Your task to perform on an android device: uninstall "Fetch Rewards" Image 0: 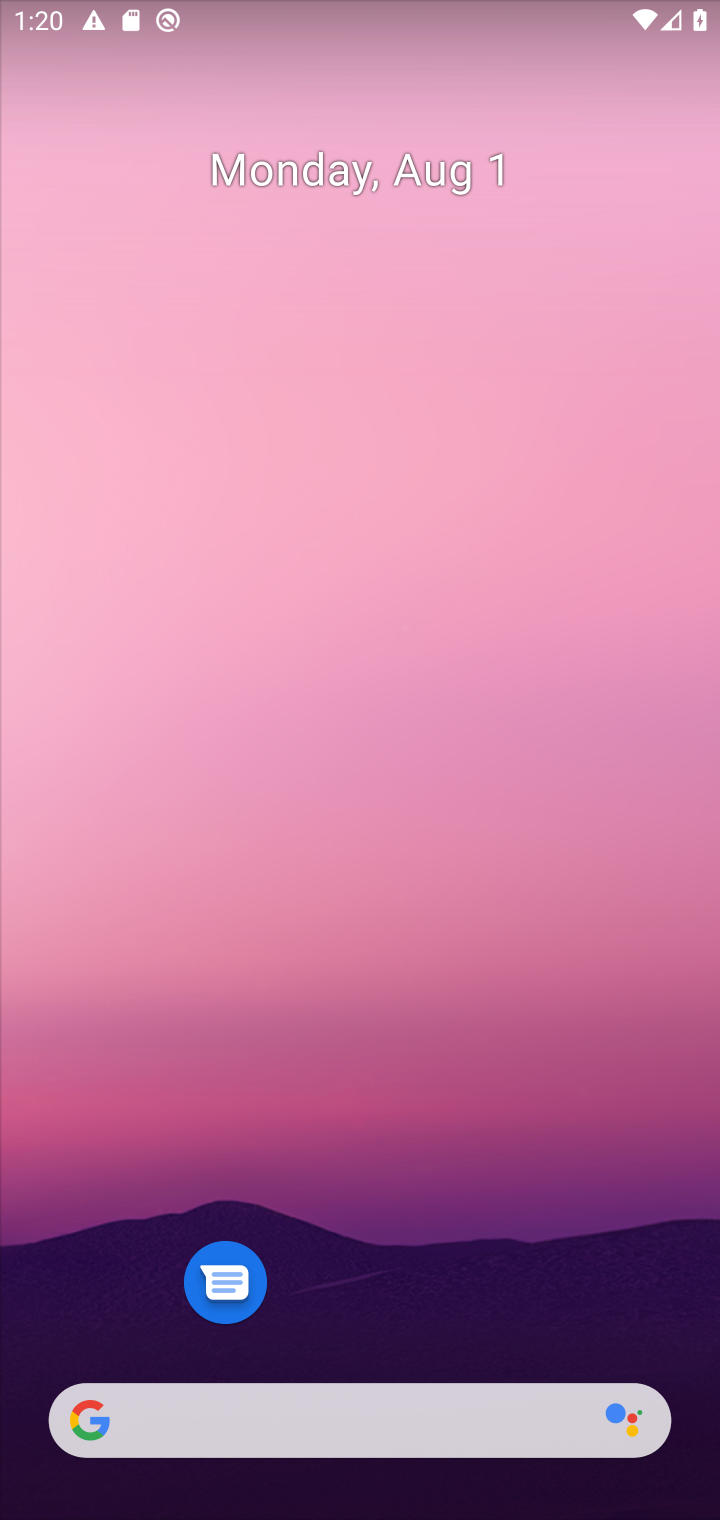
Step 0: drag from (381, 1351) to (375, 61)
Your task to perform on an android device: uninstall "Fetch Rewards" Image 1: 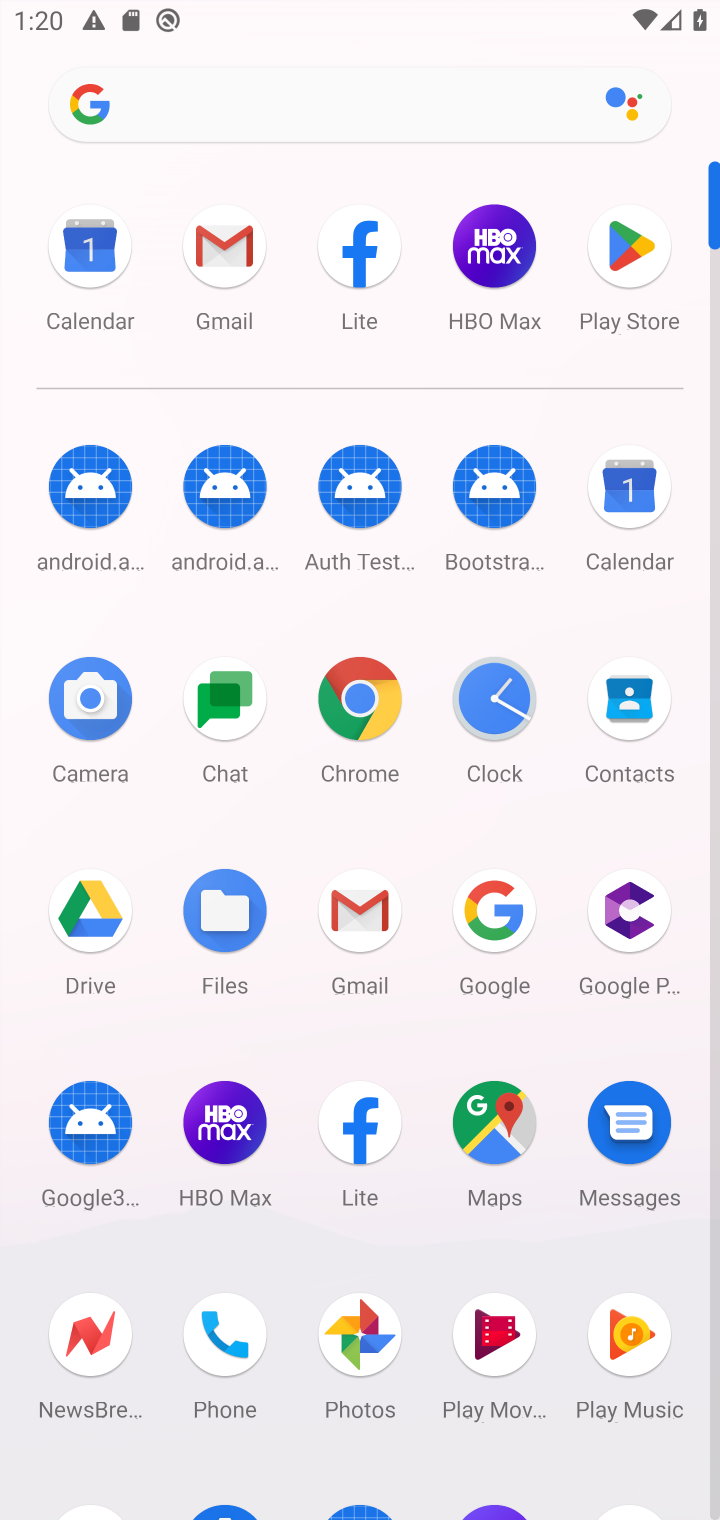
Step 1: click (631, 262)
Your task to perform on an android device: uninstall "Fetch Rewards" Image 2: 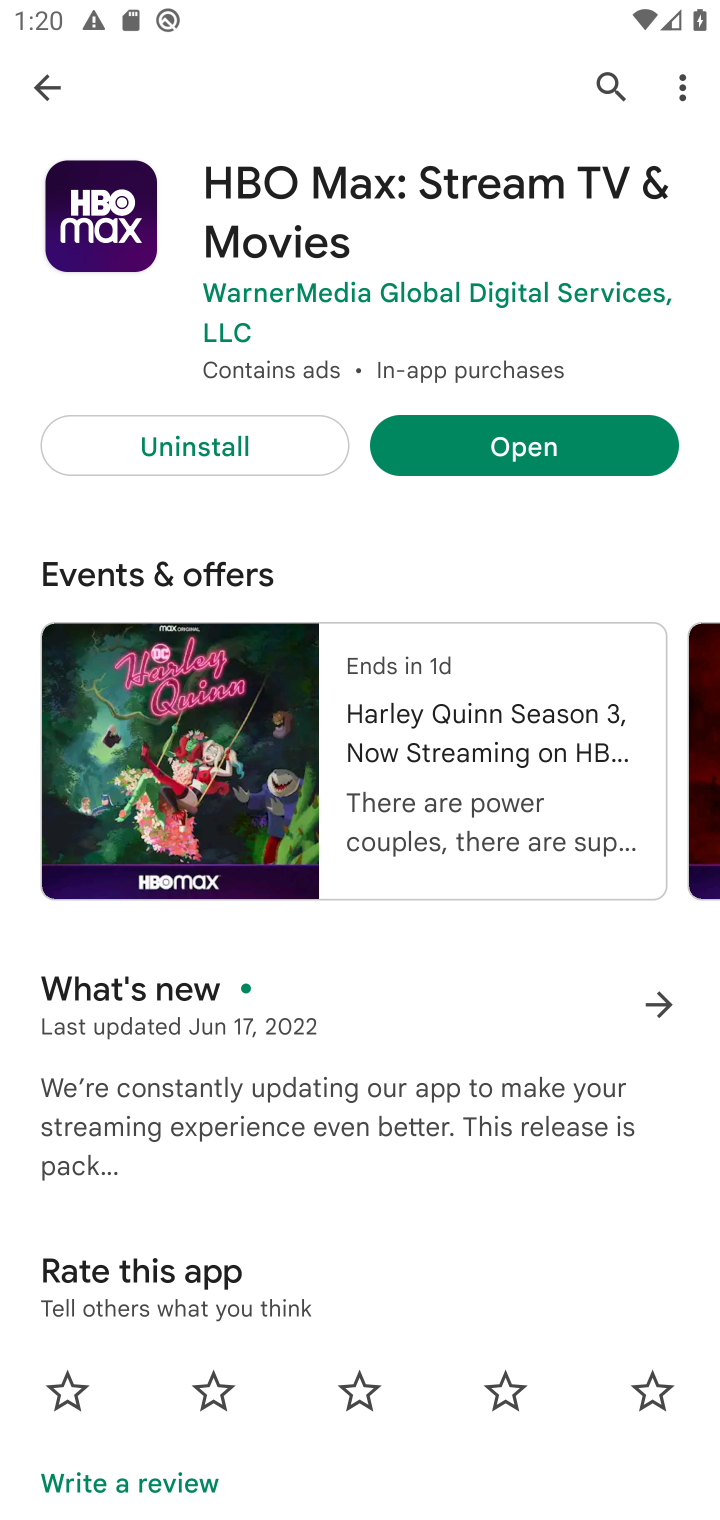
Step 2: click (66, 86)
Your task to perform on an android device: uninstall "Fetch Rewards" Image 3: 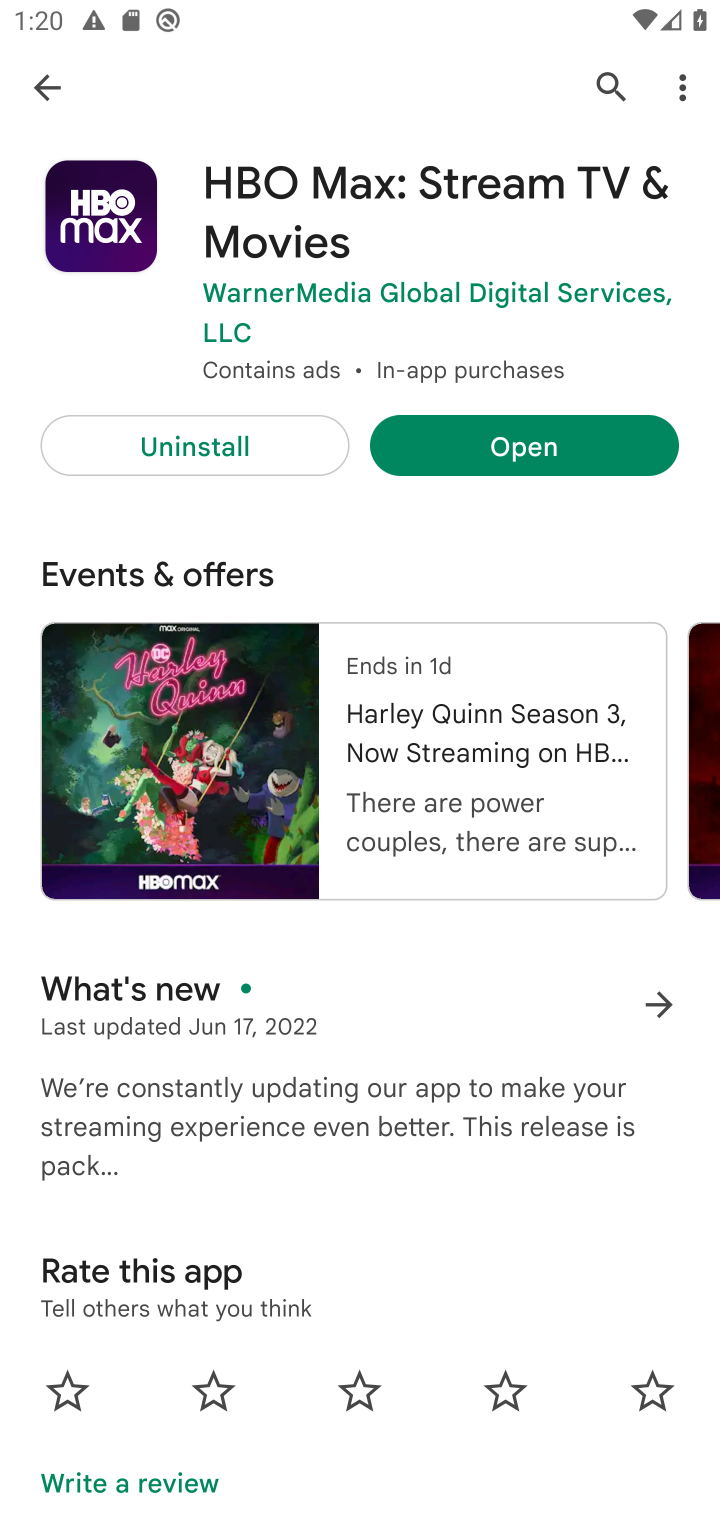
Step 3: click (55, 100)
Your task to perform on an android device: uninstall "Fetch Rewards" Image 4: 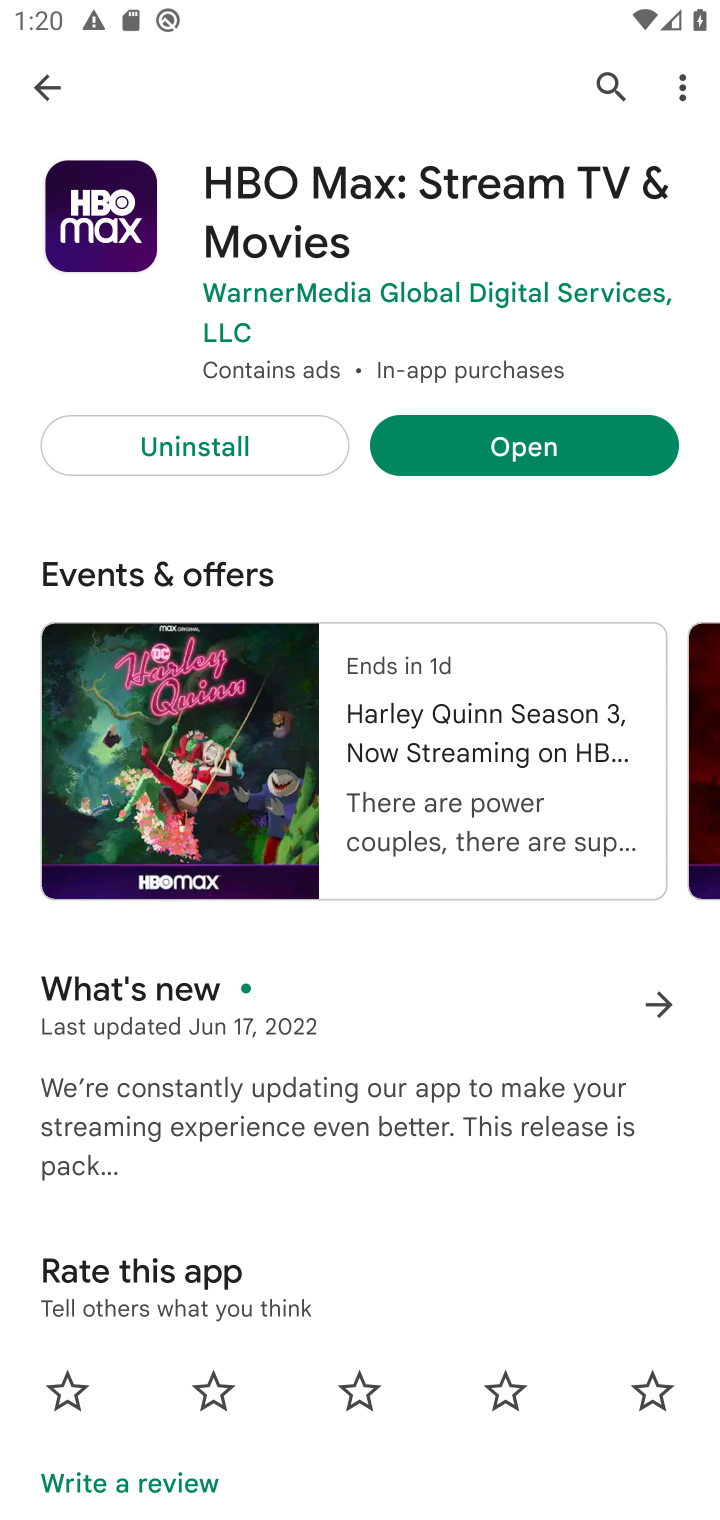
Step 4: click (53, 99)
Your task to perform on an android device: uninstall "Fetch Rewards" Image 5: 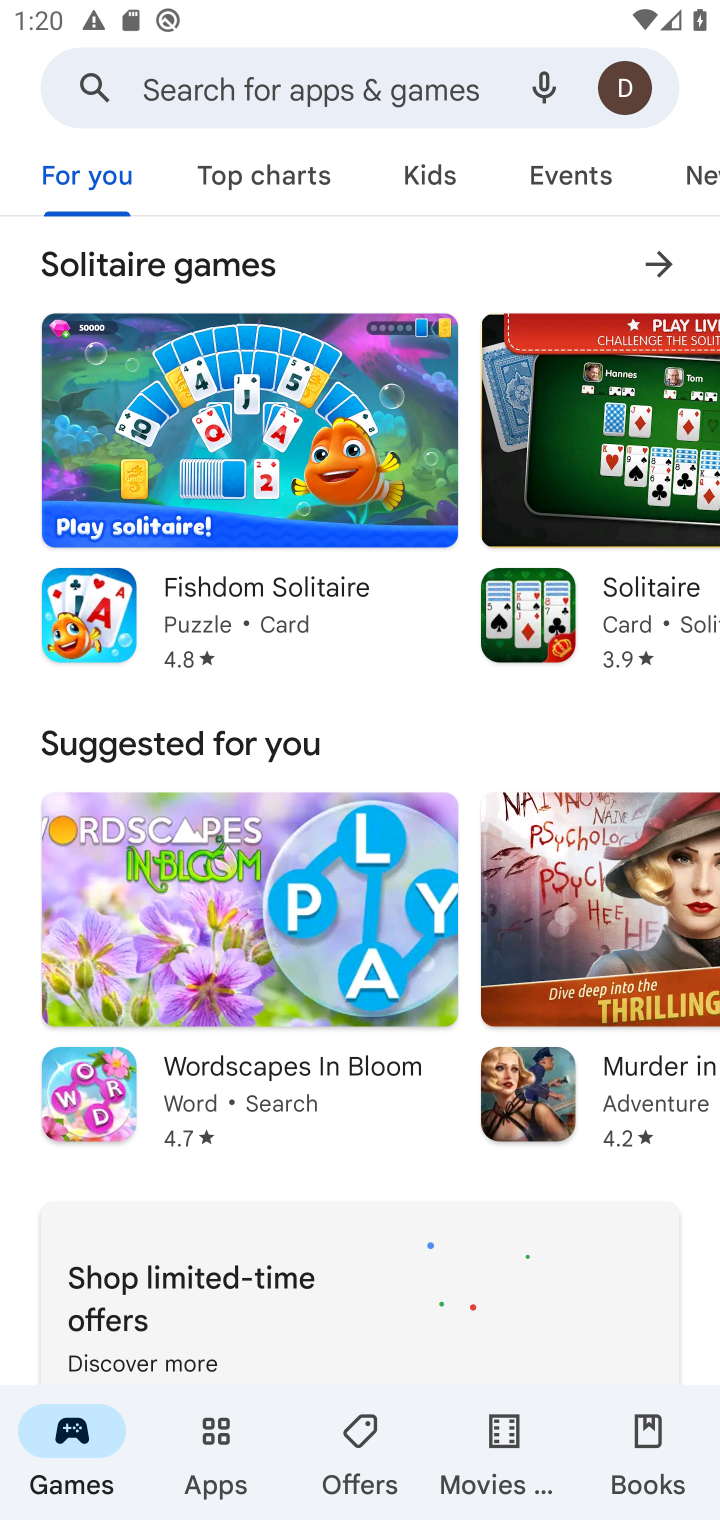
Step 5: click (219, 81)
Your task to perform on an android device: uninstall "Fetch Rewards" Image 6: 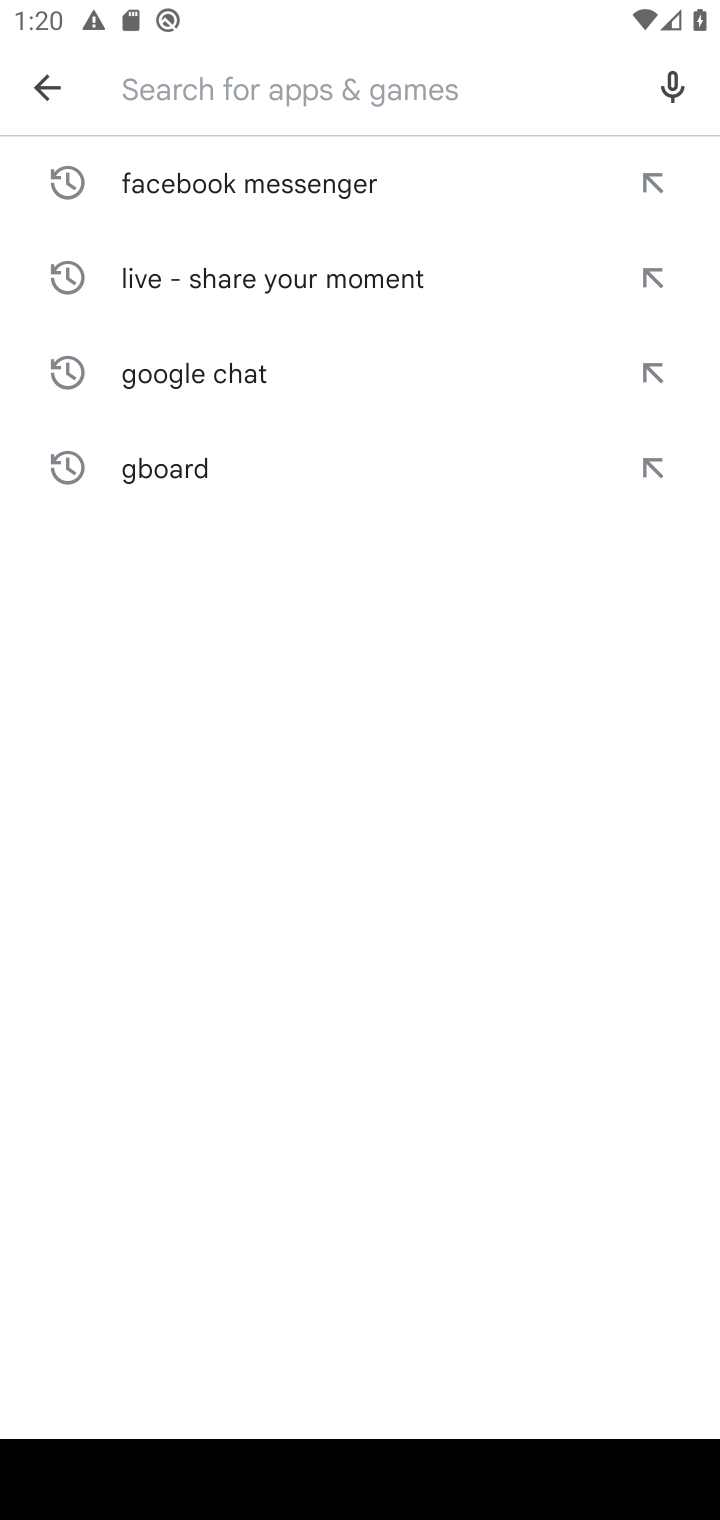
Step 6: click (525, 1091)
Your task to perform on an android device: uninstall "Fetch Rewards" Image 7: 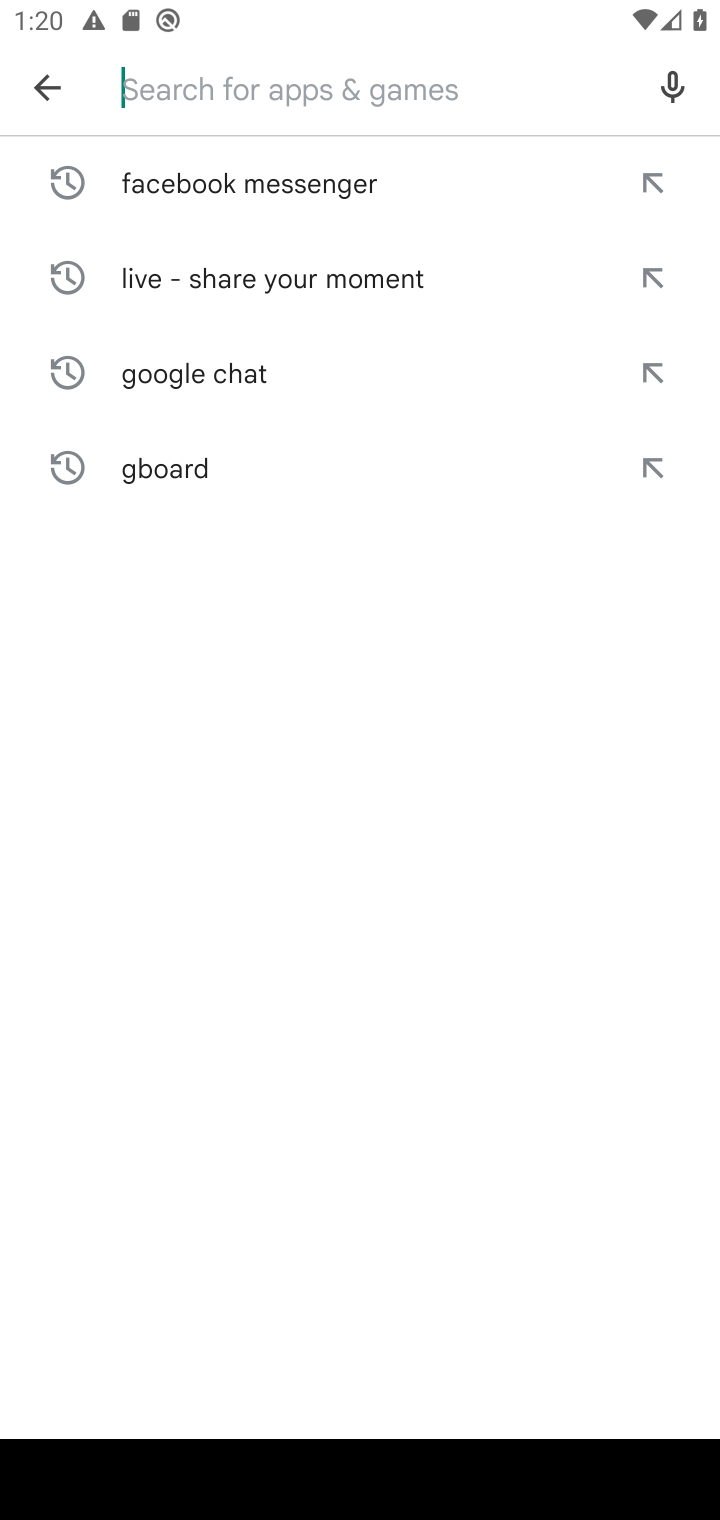
Step 7: type "Fetch Rewards"
Your task to perform on an android device: uninstall "Fetch Rewards" Image 8: 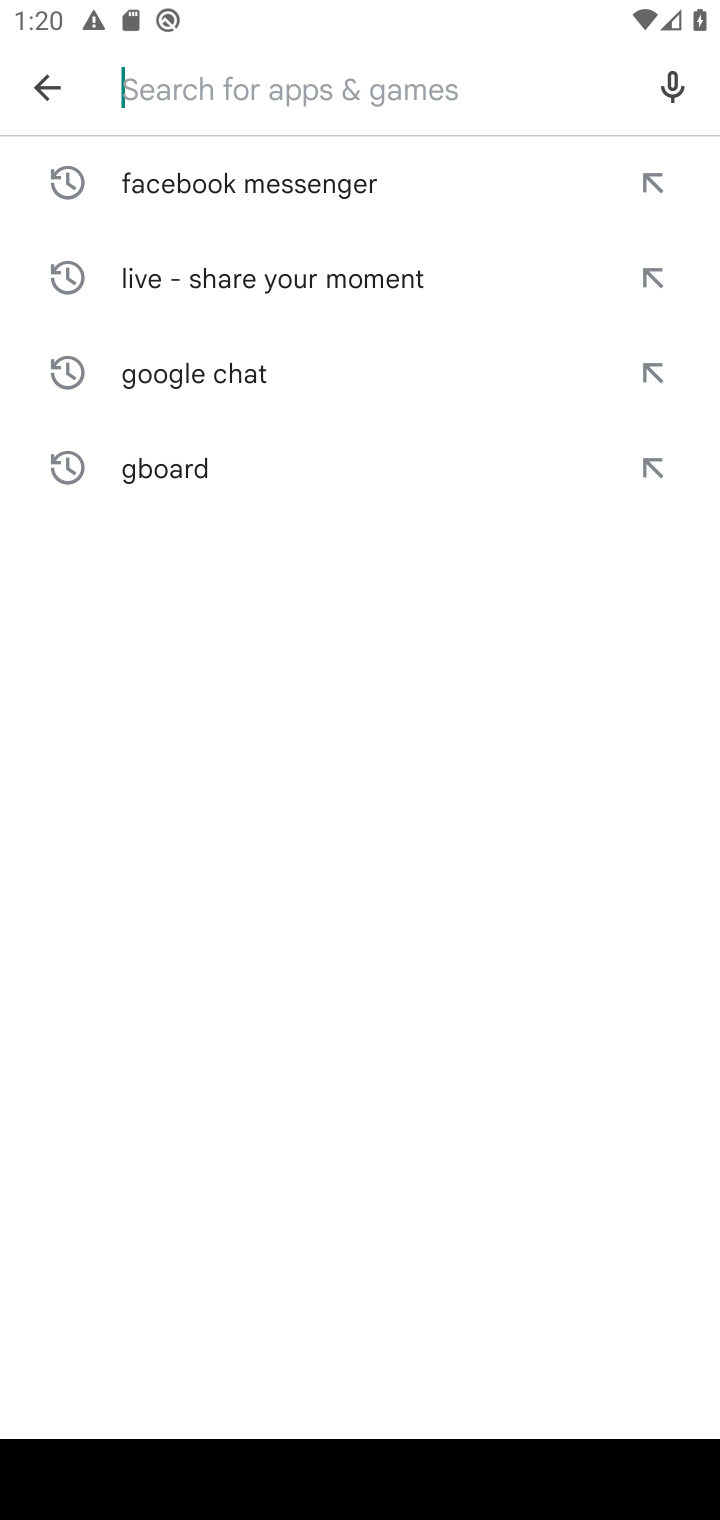
Step 8: click (292, 834)
Your task to perform on an android device: uninstall "Fetch Rewards" Image 9: 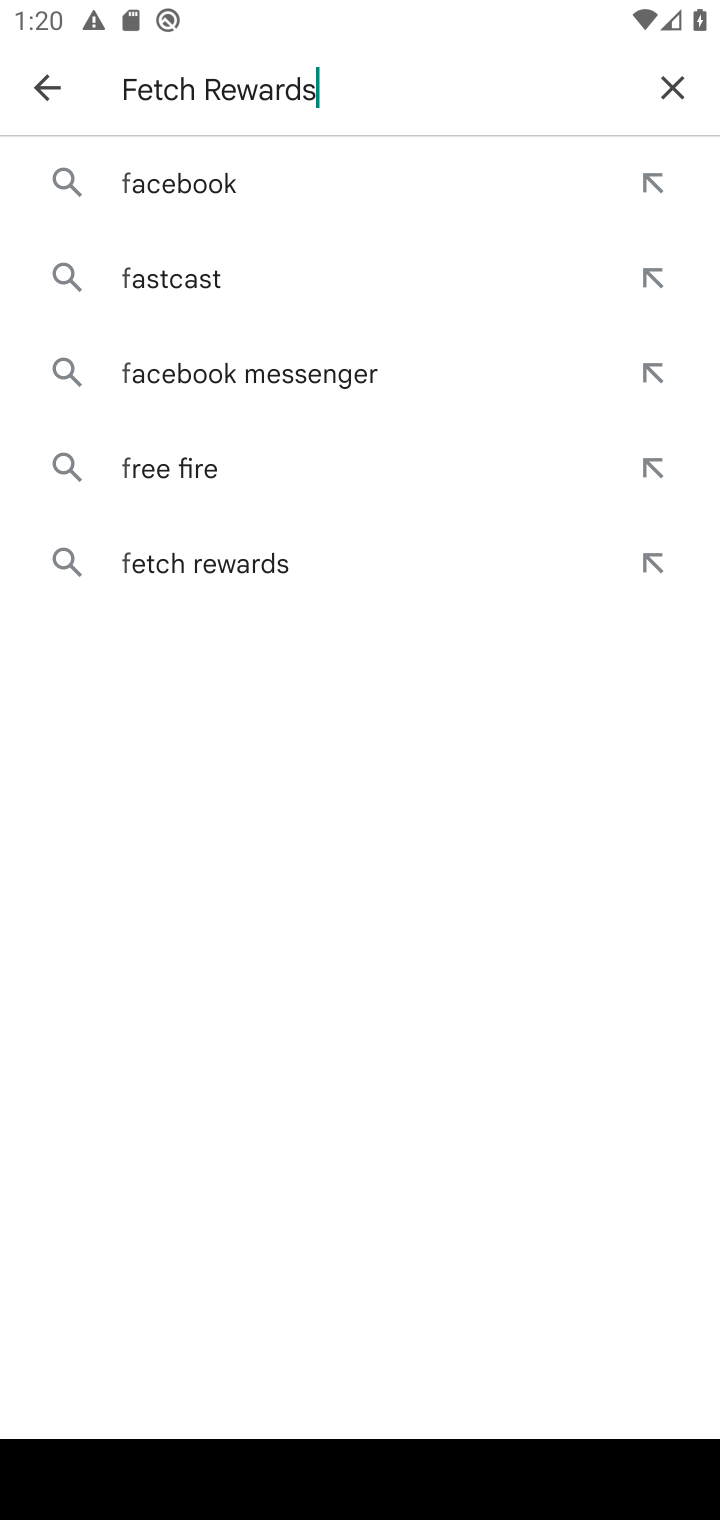
Step 9: type ""
Your task to perform on an android device: uninstall "Fetch Rewards" Image 10: 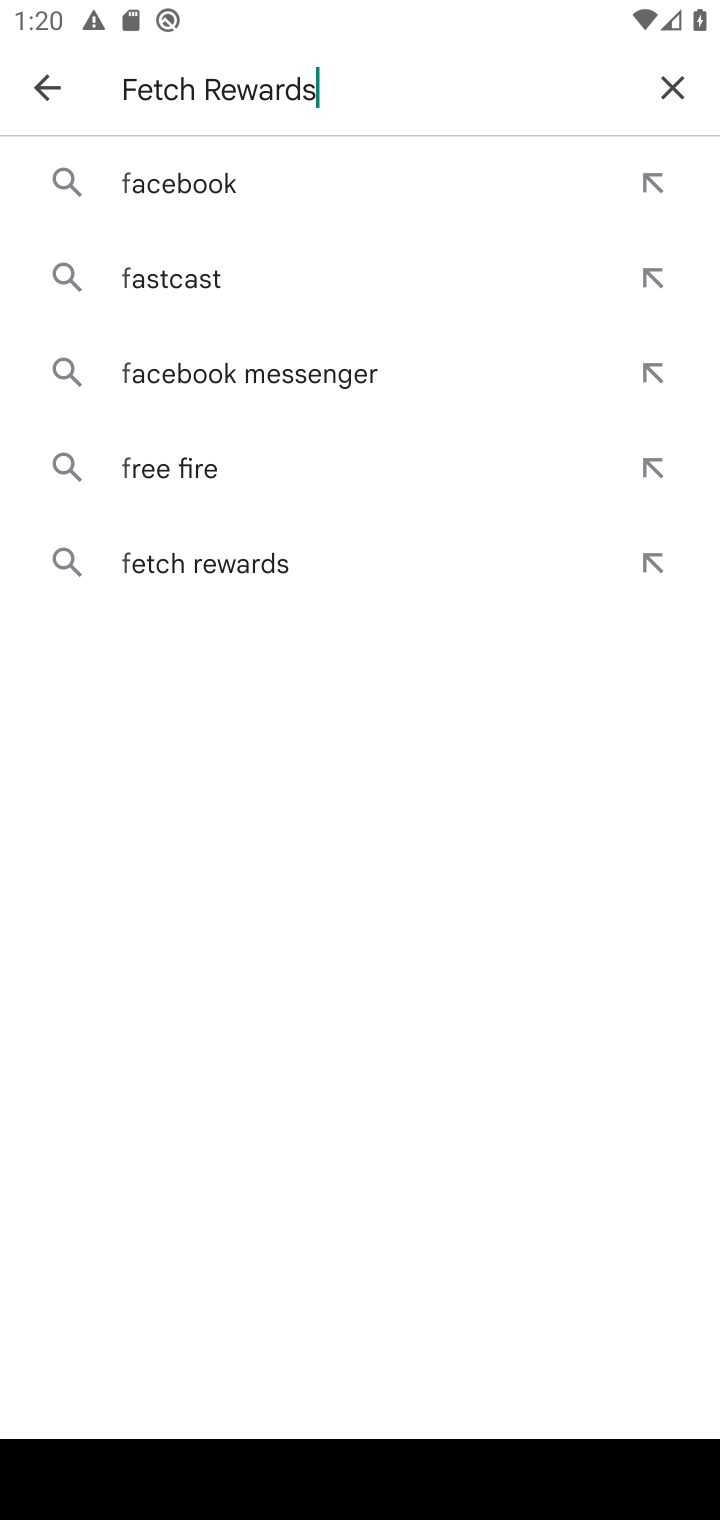
Step 10: click (196, 177)
Your task to perform on an android device: uninstall "Fetch Rewards" Image 11: 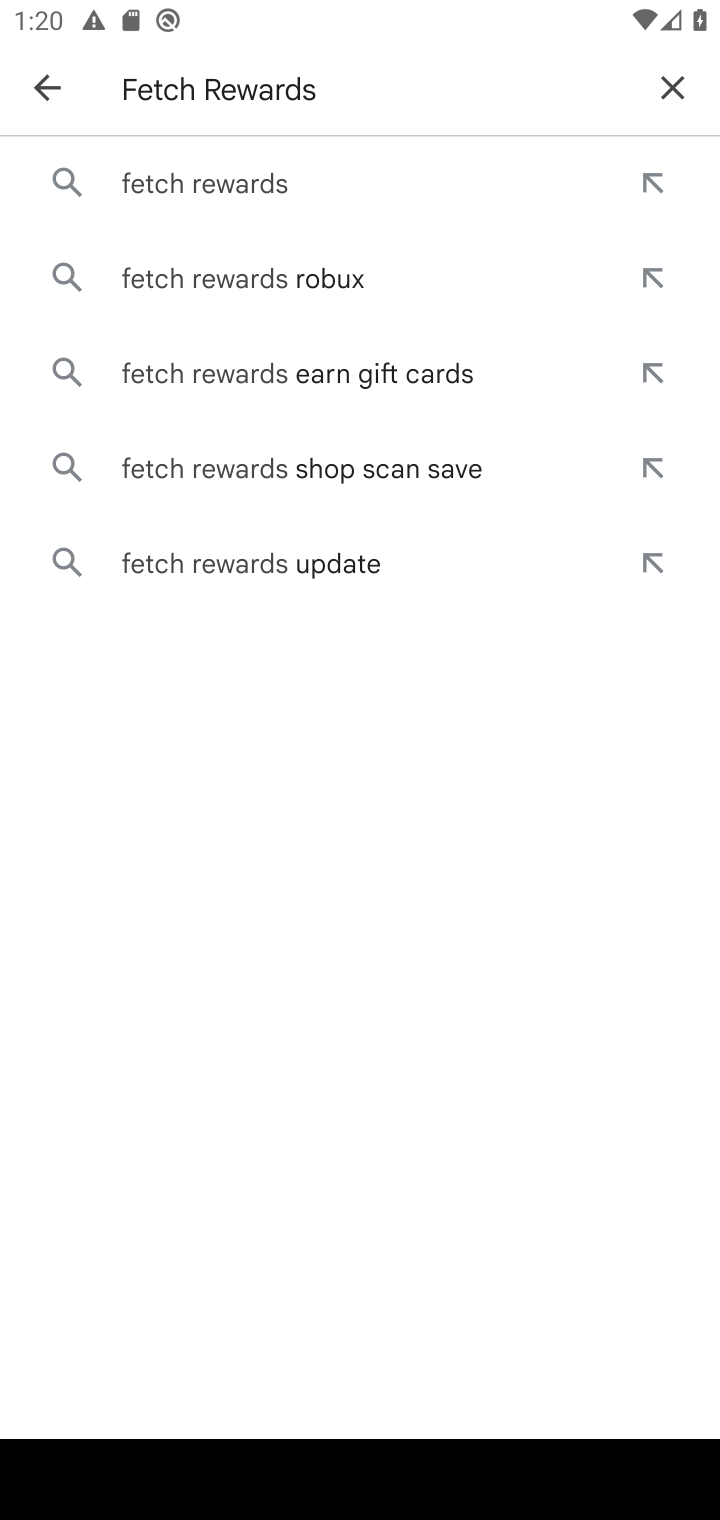
Step 11: click (196, 177)
Your task to perform on an android device: uninstall "Fetch Rewards" Image 12: 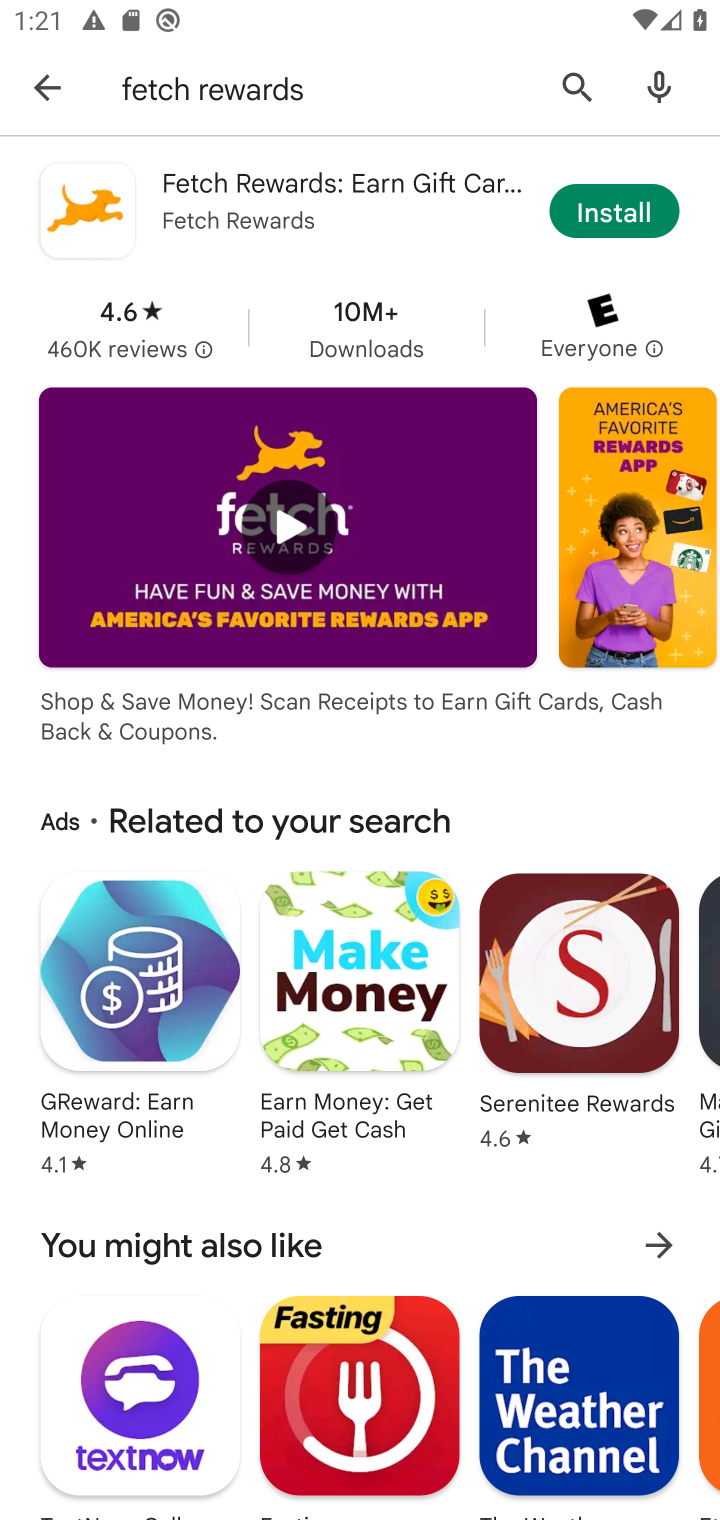
Step 12: click (423, 203)
Your task to perform on an android device: uninstall "Fetch Rewards" Image 13: 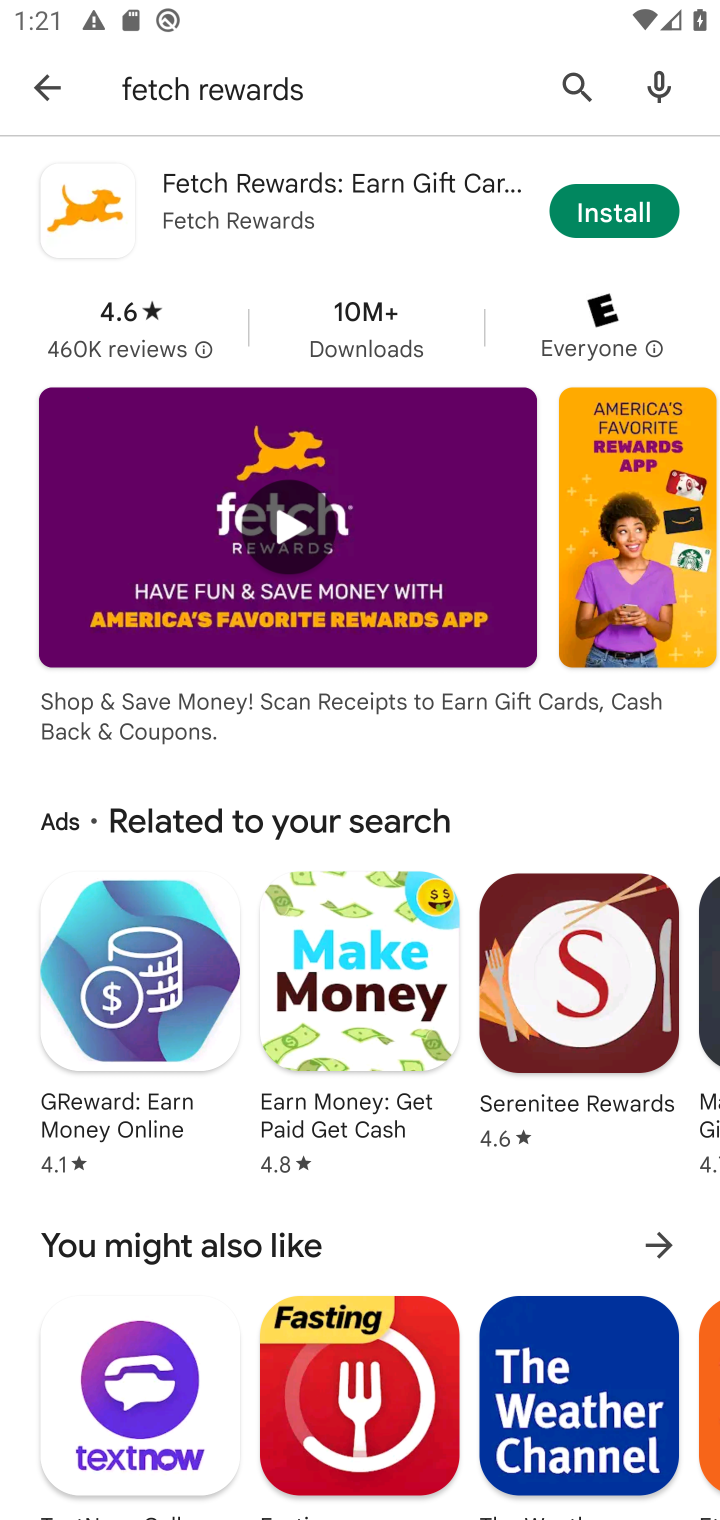
Step 13: task complete